Your task to perform on an android device: install app "Microsoft Excel" Image 0: 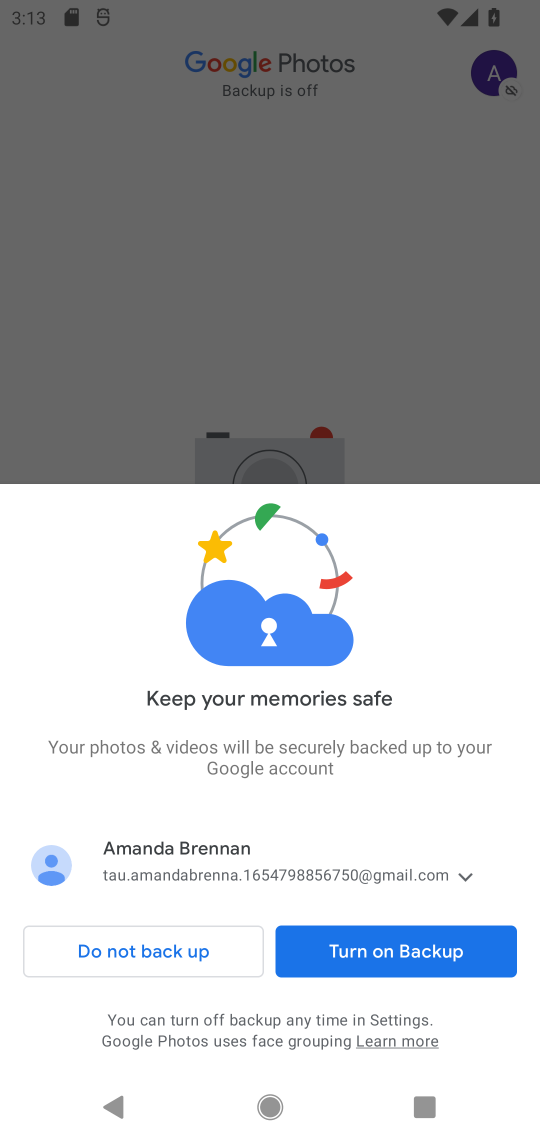
Step 0: press home button
Your task to perform on an android device: install app "Microsoft Excel" Image 1: 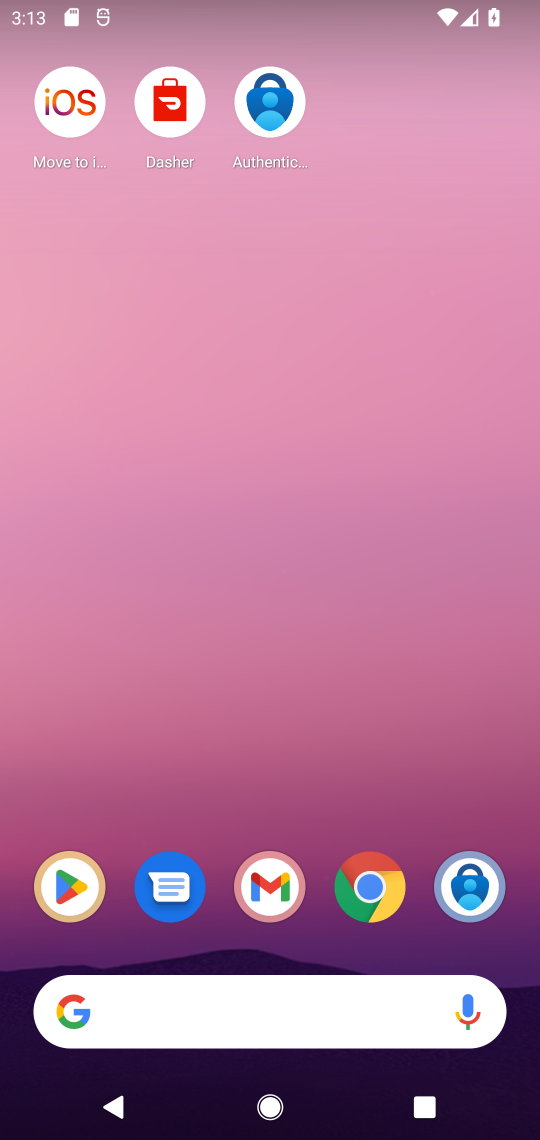
Step 1: click (61, 884)
Your task to perform on an android device: install app "Microsoft Excel" Image 2: 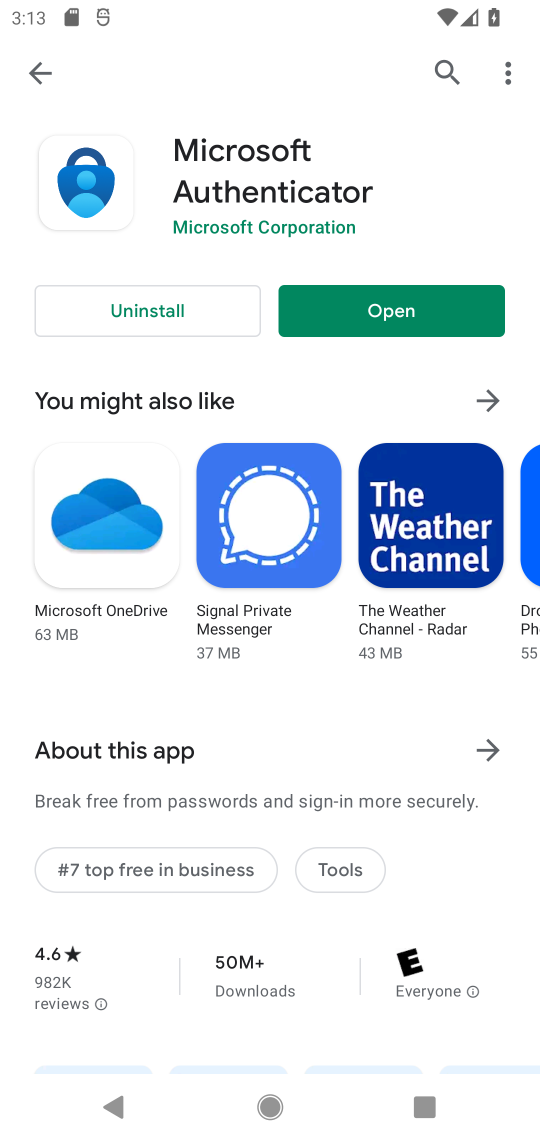
Step 2: click (28, 59)
Your task to perform on an android device: install app "Microsoft Excel" Image 3: 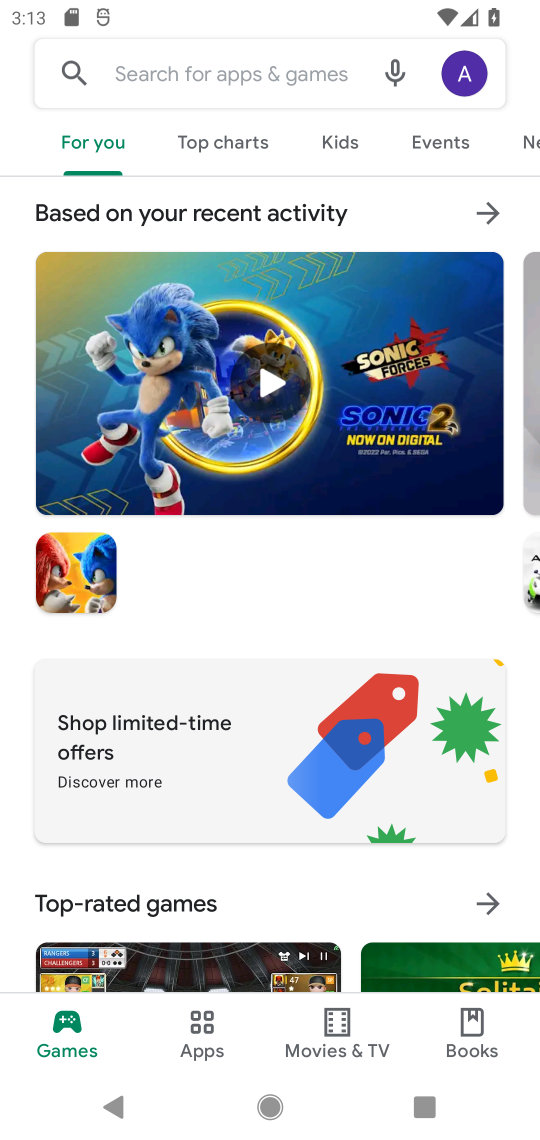
Step 3: click (169, 70)
Your task to perform on an android device: install app "Microsoft Excel" Image 4: 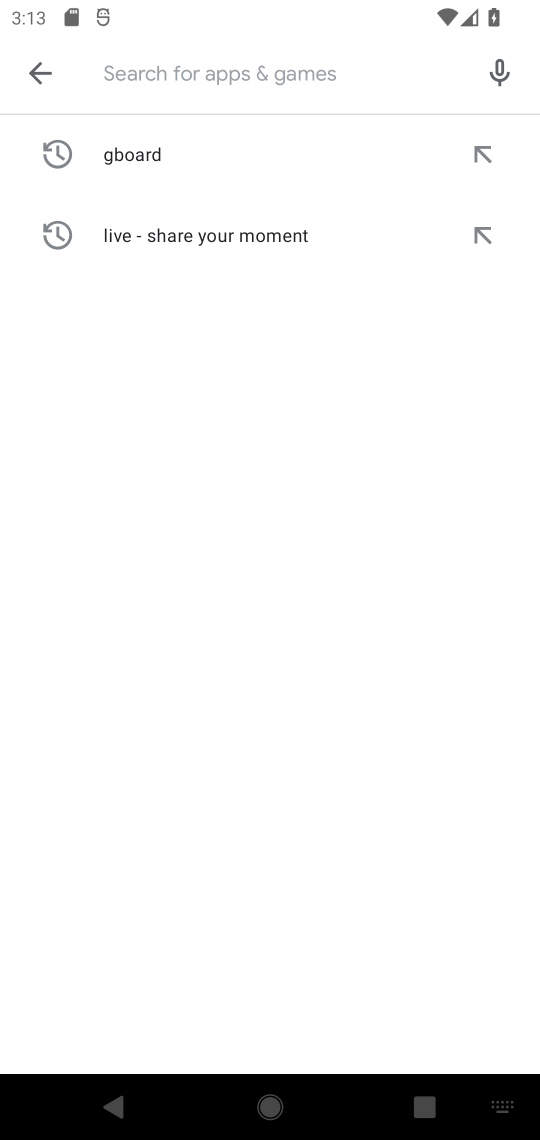
Step 4: type "Microsoft Excel"
Your task to perform on an android device: install app "Microsoft Excel" Image 5: 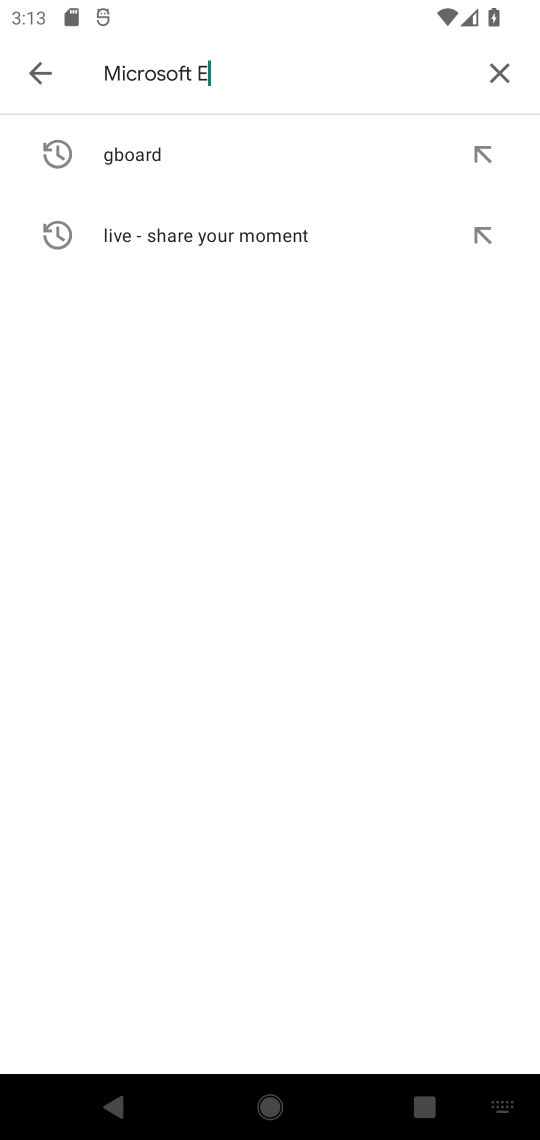
Step 5: type ""
Your task to perform on an android device: install app "Microsoft Excel" Image 6: 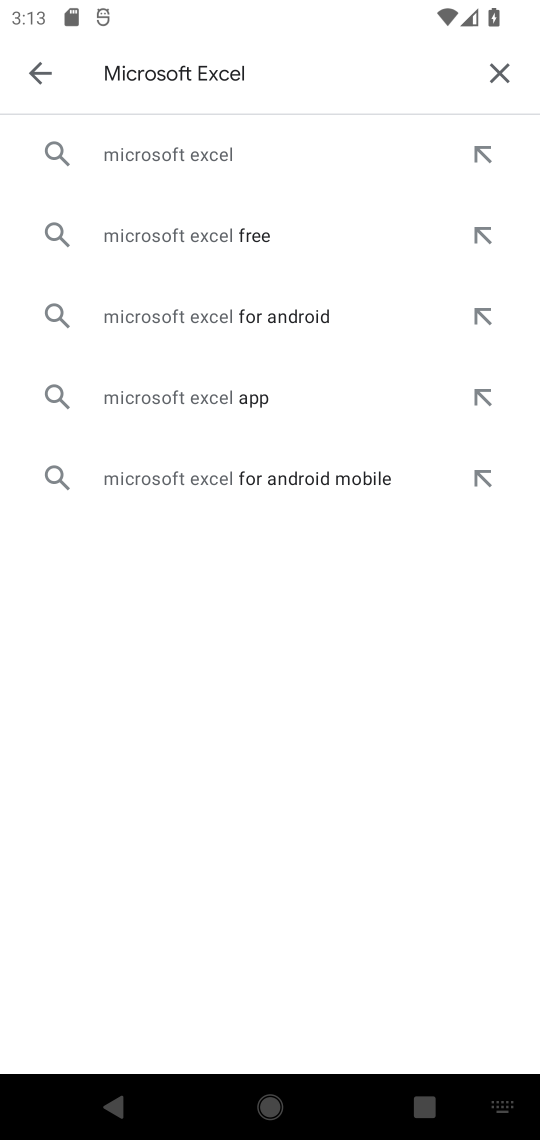
Step 6: click (147, 163)
Your task to perform on an android device: install app "Microsoft Excel" Image 7: 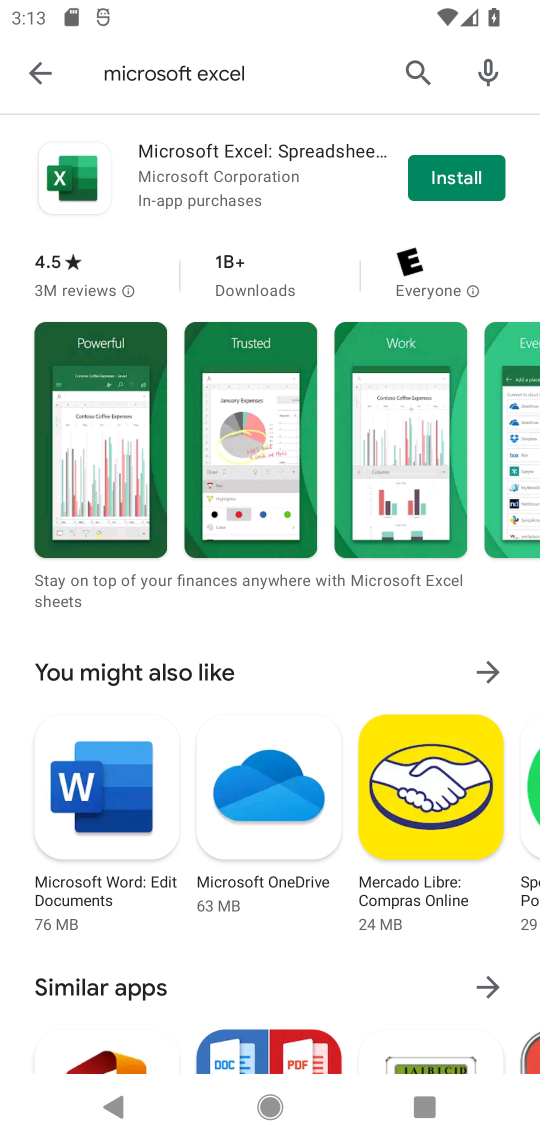
Step 7: click (455, 180)
Your task to perform on an android device: install app "Microsoft Excel" Image 8: 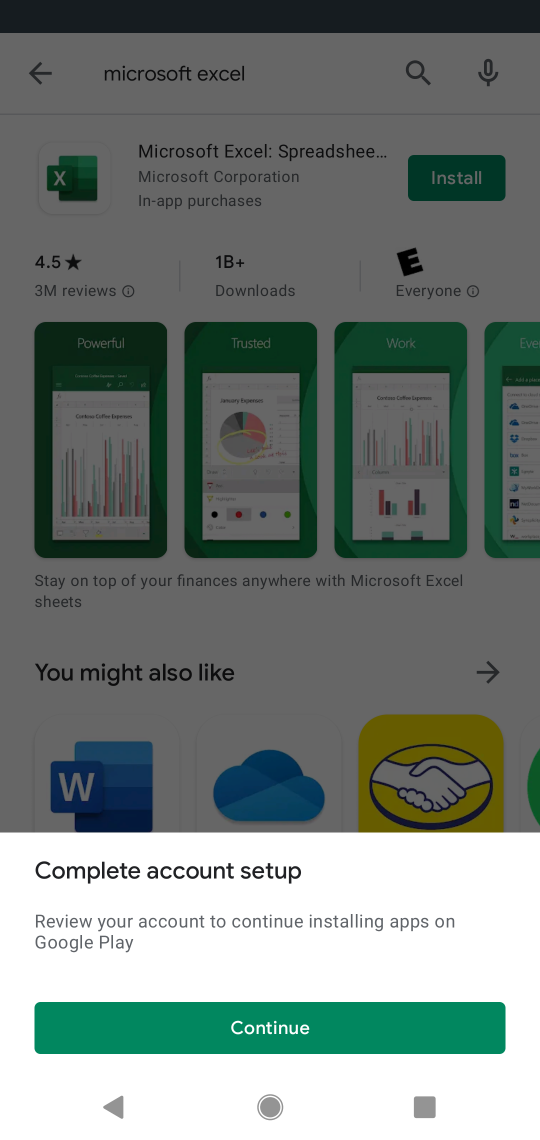
Step 8: click (312, 1041)
Your task to perform on an android device: install app "Microsoft Excel" Image 9: 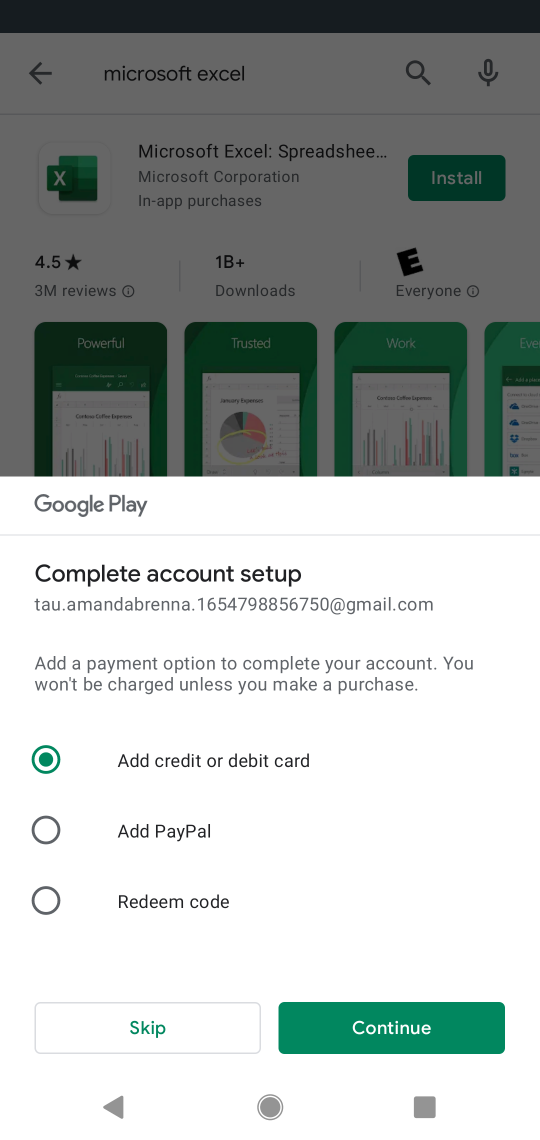
Step 9: click (137, 1045)
Your task to perform on an android device: install app "Microsoft Excel" Image 10: 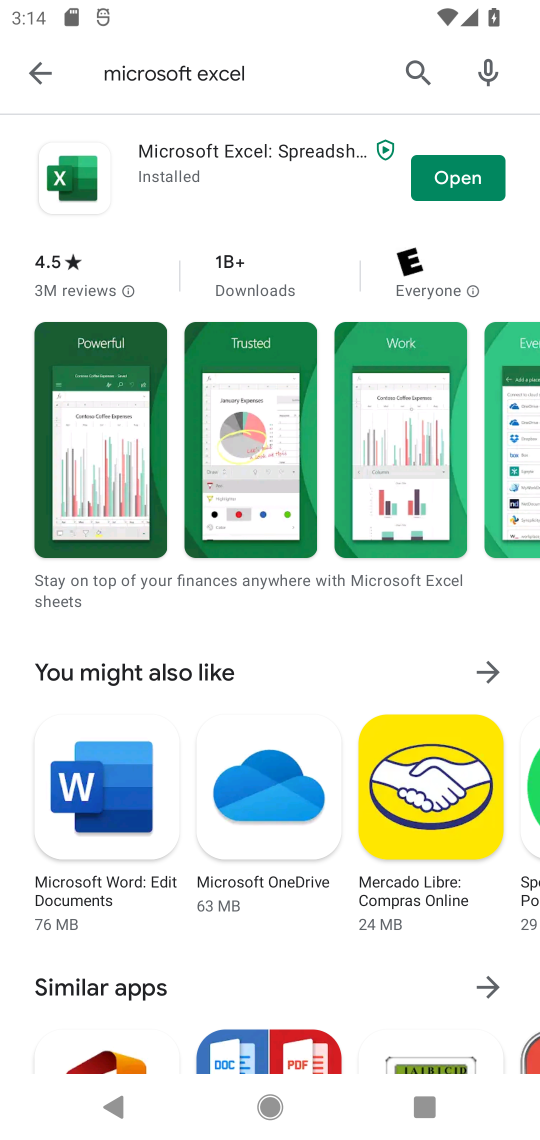
Step 10: task complete